Your task to perform on an android device: open device folders in google photos Image 0: 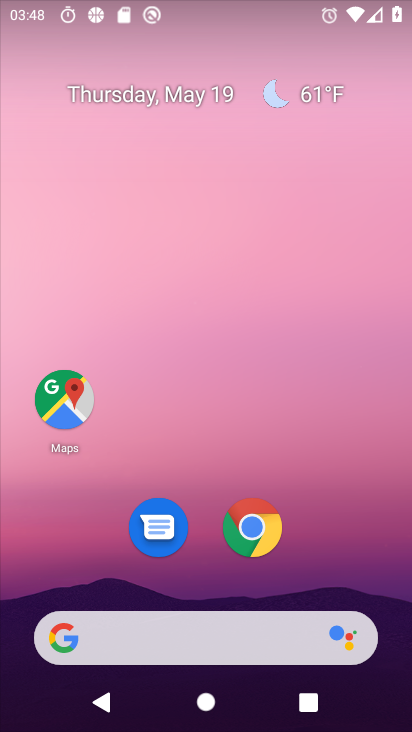
Step 0: drag from (204, 546) to (283, 56)
Your task to perform on an android device: open device folders in google photos Image 1: 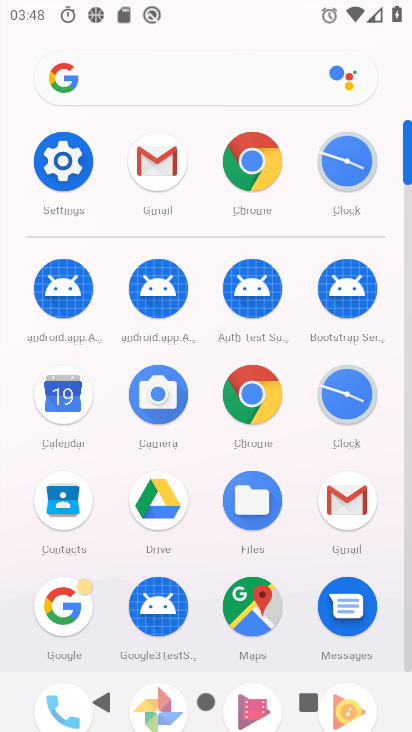
Step 1: drag from (190, 590) to (246, 197)
Your task to perform on an android device: open device folders in google photos Image 2: 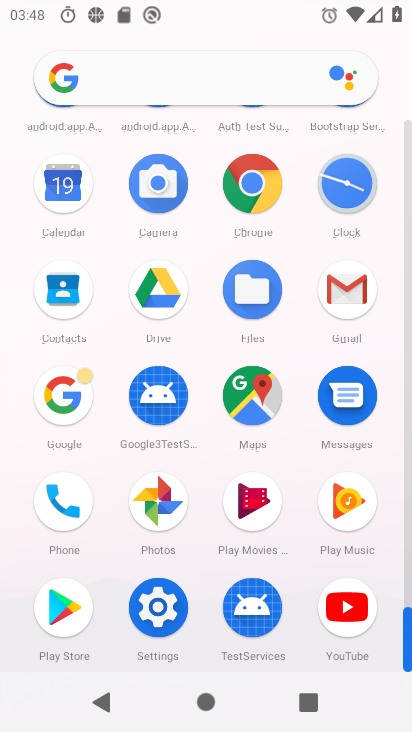
Step 2: click (166, 512)
Your task to perform on an android device: open device folders in google photos Image 3: 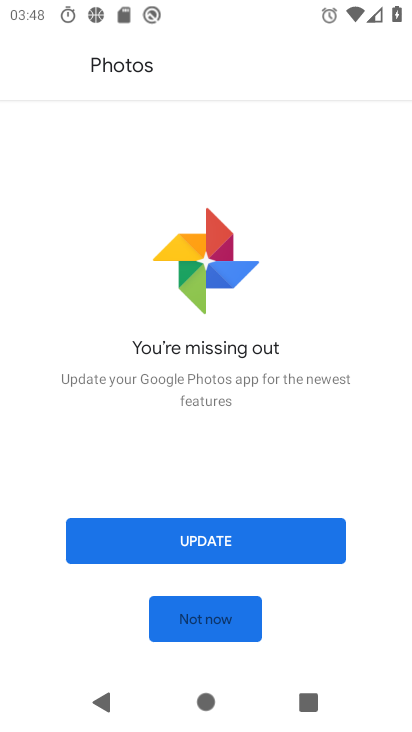
Step 3: click (190, 622)
Your task to perform on an android device: open device folders in google photos Image 4: 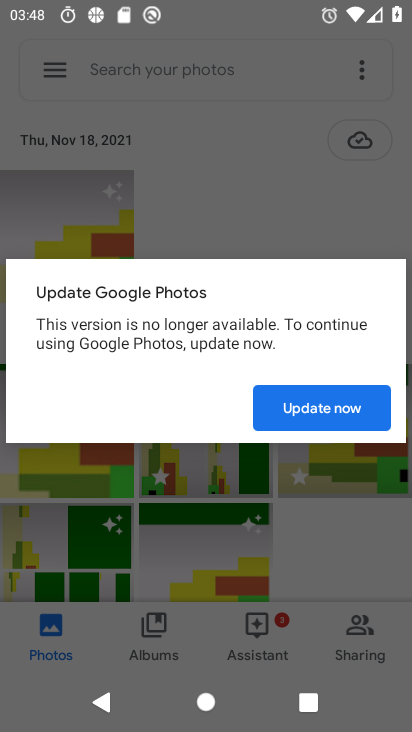
Step 4: click (279, 403)
Your task to perform on an android device: open device folders in google photos Image 5: 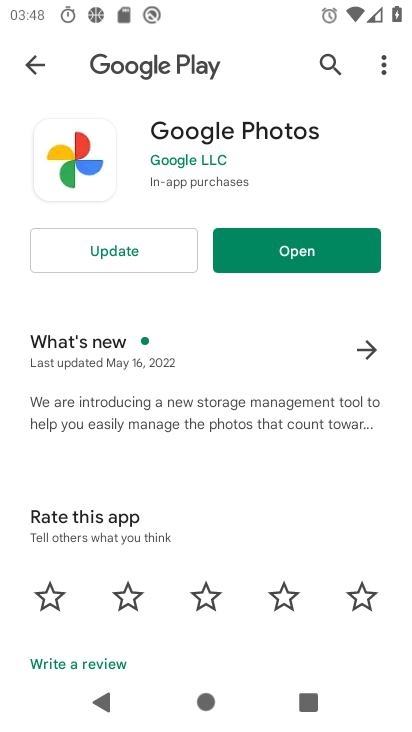
Step 5: click (275, 251)
Your task to perform on an android device: open device folders in google photos Image 6: 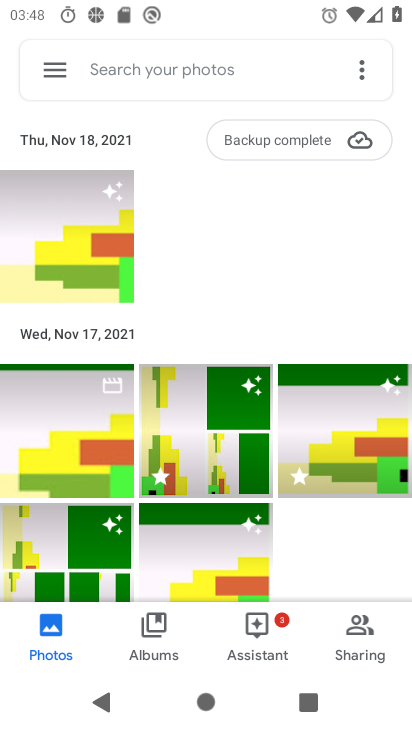
Step 6: click (65, 60)
Your task to perform on an android device: open device folders in google photos Image 7: 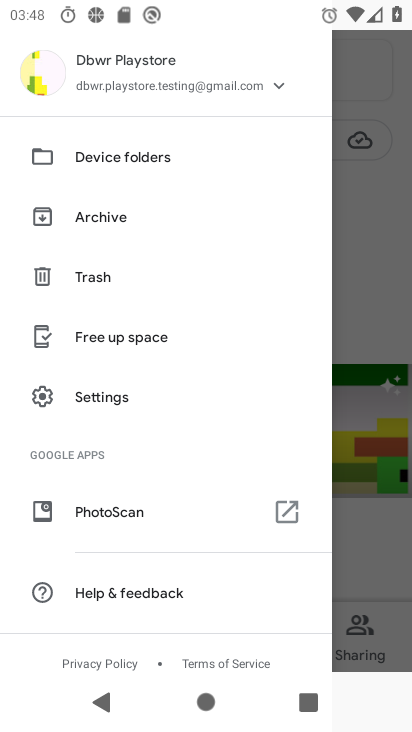
Step 7: click (180, 165)
Your task to perform on an android device: open device folders in google photos Image 8: 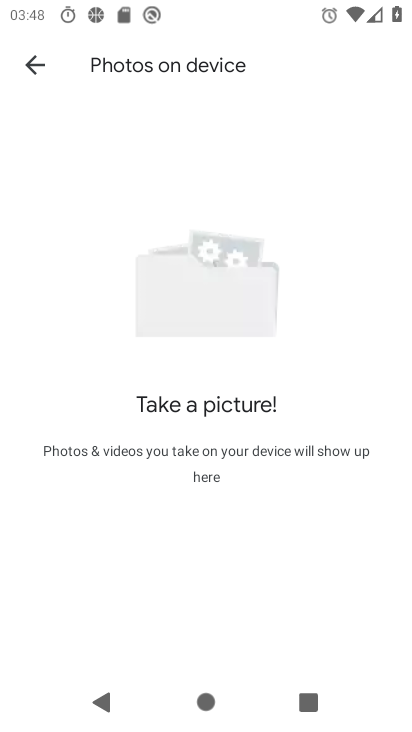
Step 8: task complete